Your task to perform on an android device: Turn off the flashlight Image 0: 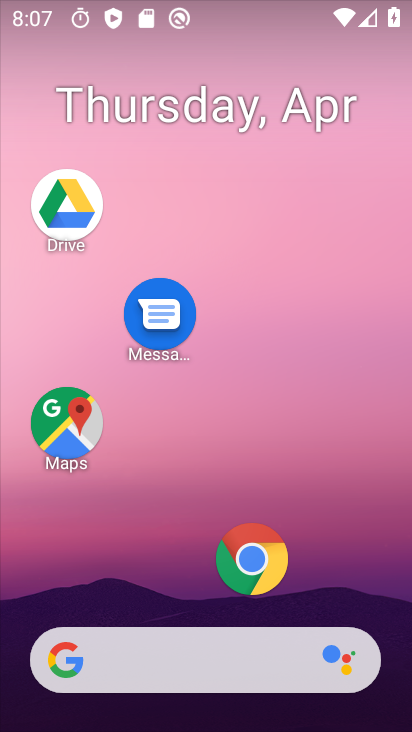
Step 0: drag from (231, 721) to (118, 257)
Your task to perform on an android device: Turn off the flashlight Image 1: 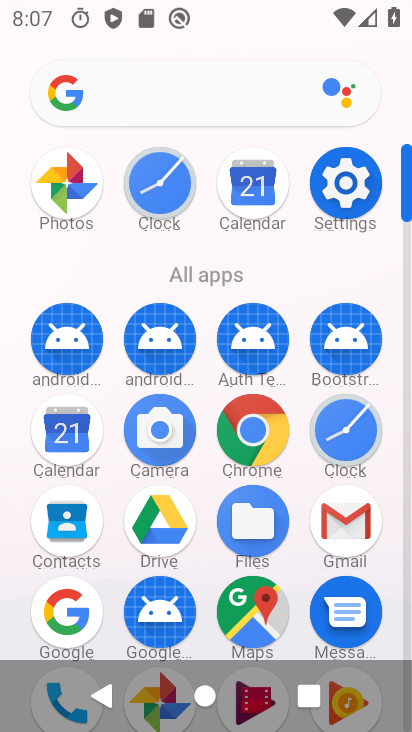
Step 1: drag from (297, 594) to (247, 66)
Your task to perform on an android device: Turn off the flashlight Image 2: 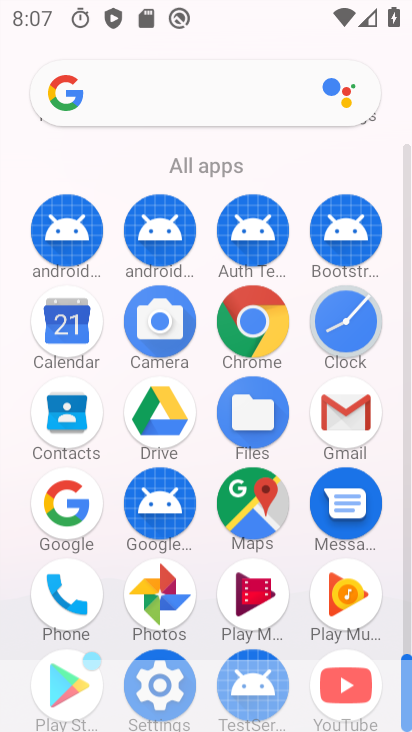
Step 2: drag from (301, 587) to (257, 185)
Your task to perform on an android device: Turn off the flashlight Image 3: 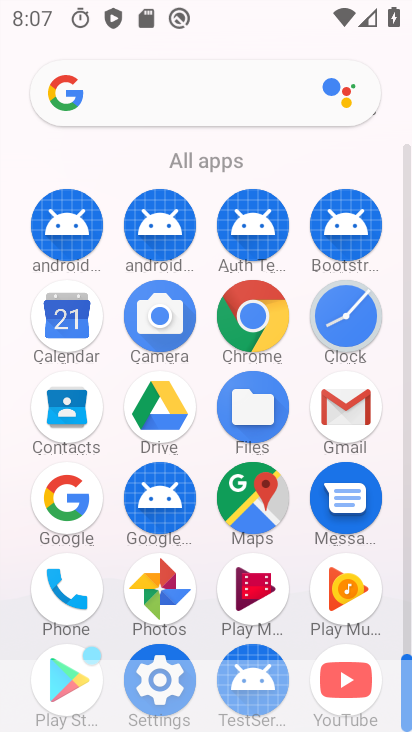
Step 3: drag from (305, 603) to (249, 181)
Your task to perform on an android device: Turn off the flashlight Image 4: 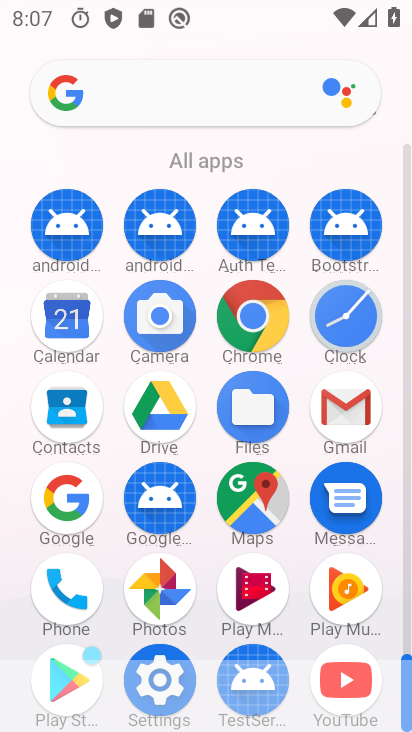
Step 4: drag from (187, 640) to (151, 335)
Your task to perform on an android device: Turn off the flashlight Image 5: 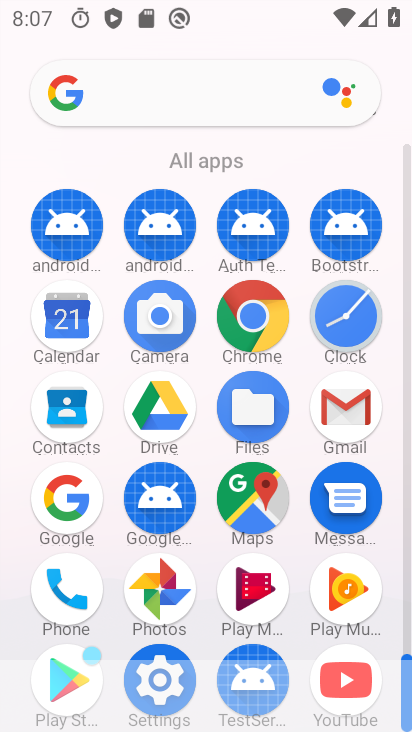
Step 5: drag from (166, 628) to (114, 280)
Your task to perform on an android device: Turn off the flashlight Image 6: 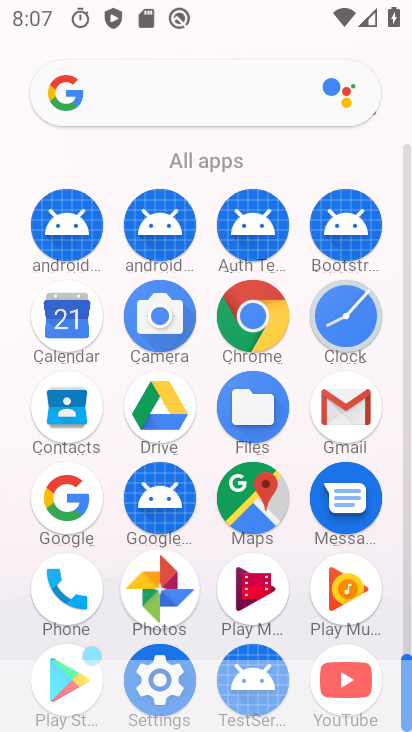
Step 6: drag from (186, 615) to (182, 184)
Your task to perform on an android device: Turn off the flashlight Image 7: 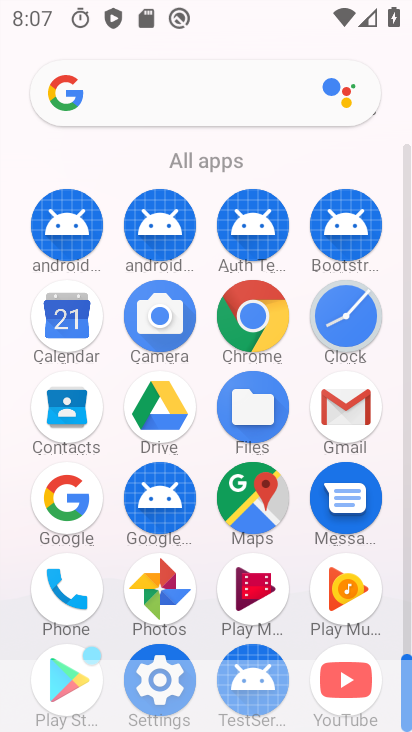
Step 7: click (191, 272)
Your task to perform on an android device: Turn off the flashlight Image 8: 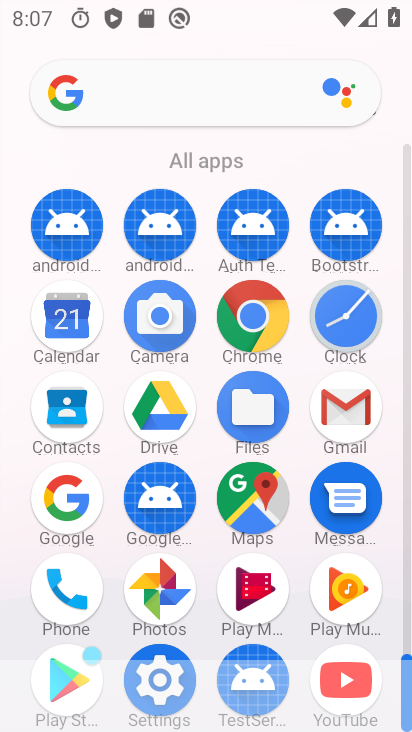
Step 8: task complete